Your task to perform on an android device: change keyboard looks Image 0: 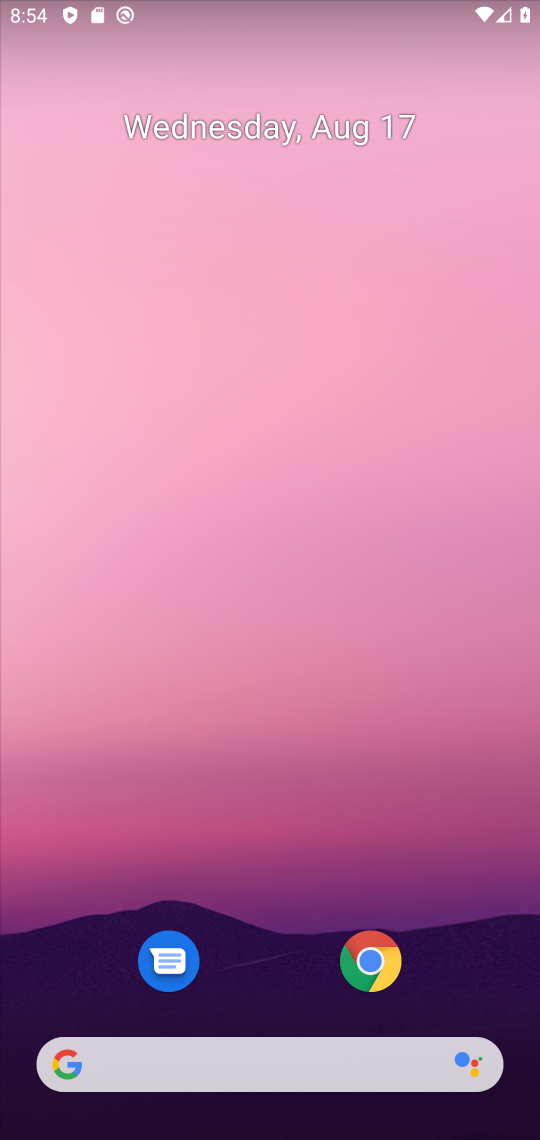
Step 0: drag from (245, 915) to (150, 7)
Your task to perform on an android device: change keyboard looks Image 1: 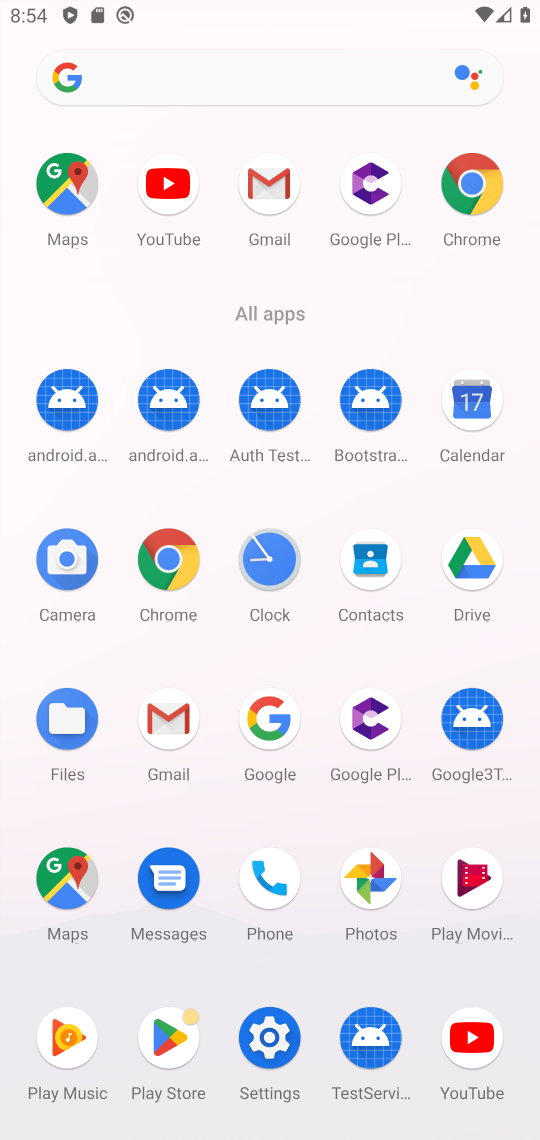
Step 1: click (262, 1043)
Your task to perform on an android device: change keyboard looks Image 2: 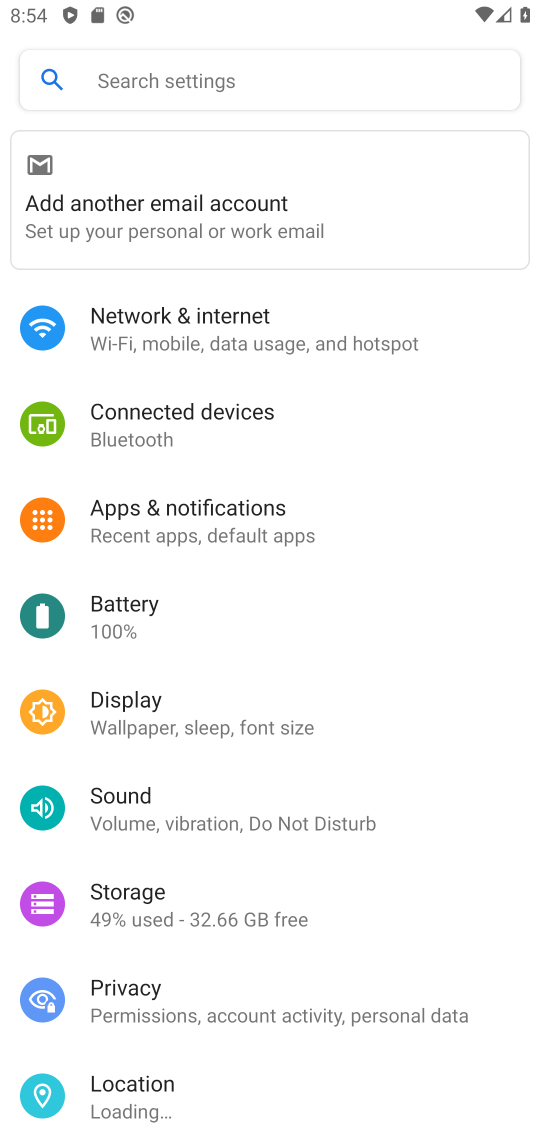
Step 2: drag from (367, 954) to (311, 51)
Your task to perform on an android device: change keyboard looks Image 3: 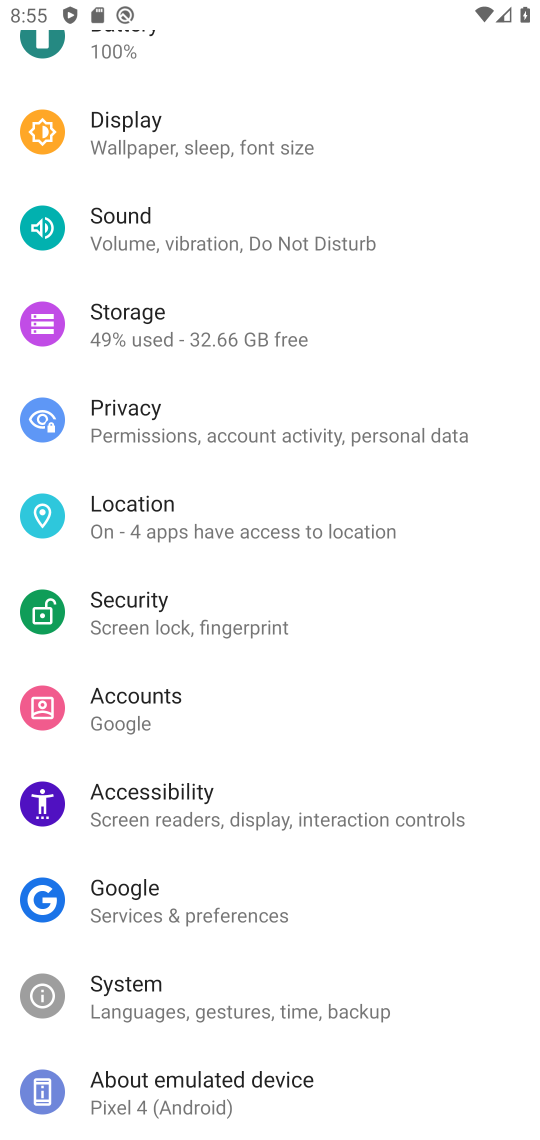
Step 3: click (201, 1011)
Your task to perform on an android device: change keyboard looks Image 4: 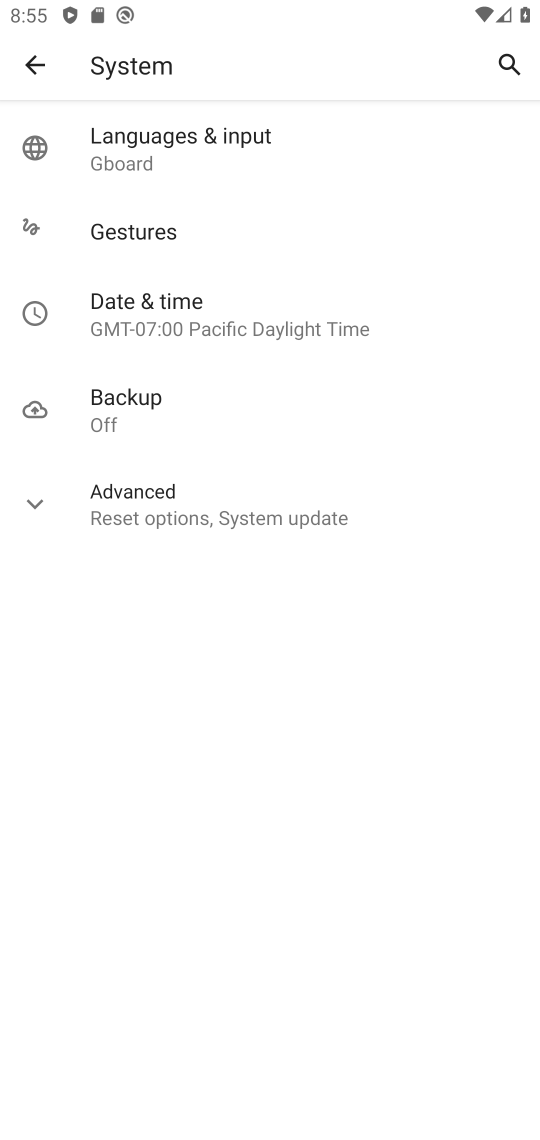
Step 4: click (139, 146)
Your task to perform on an android device: change keyboard looks Image 5: 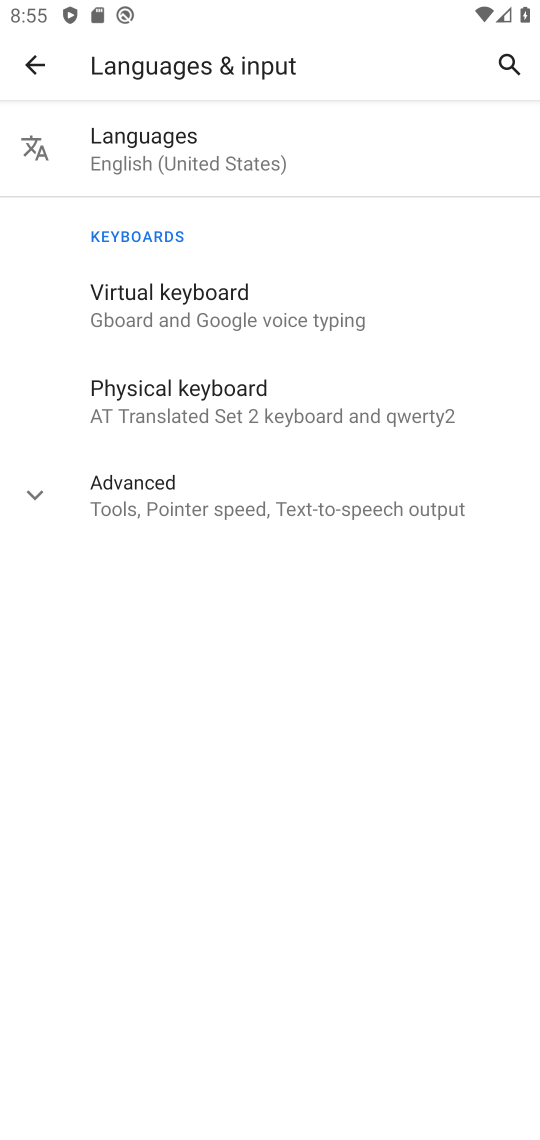
Step 5: click (136, 306)
Your task to perform on an android device: change keyboard looks Image 6: 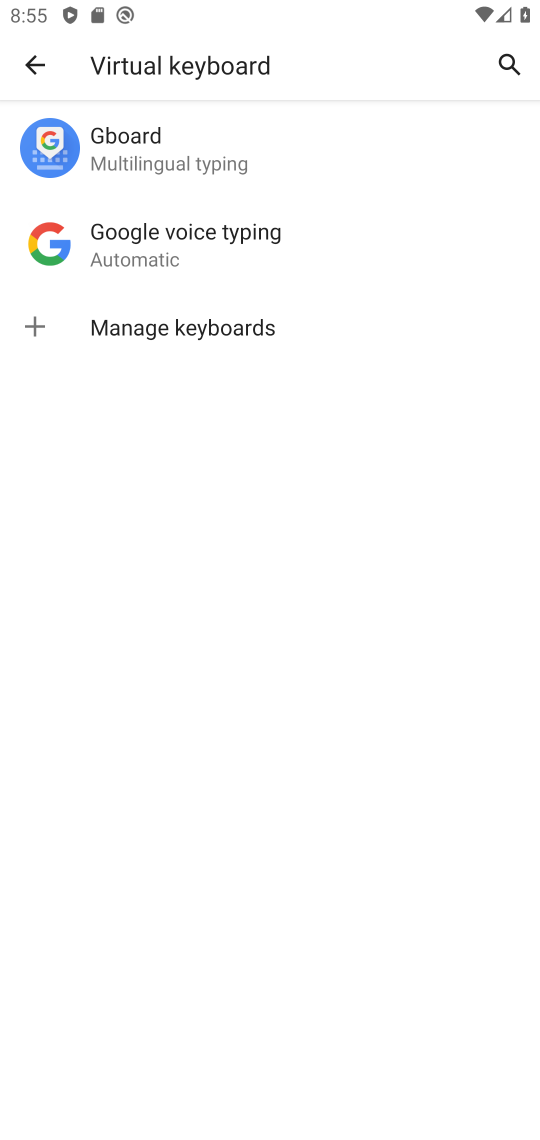
Step 6: click (134, 160)
Your task to perform on an android device: change keyboard looks Image 7: 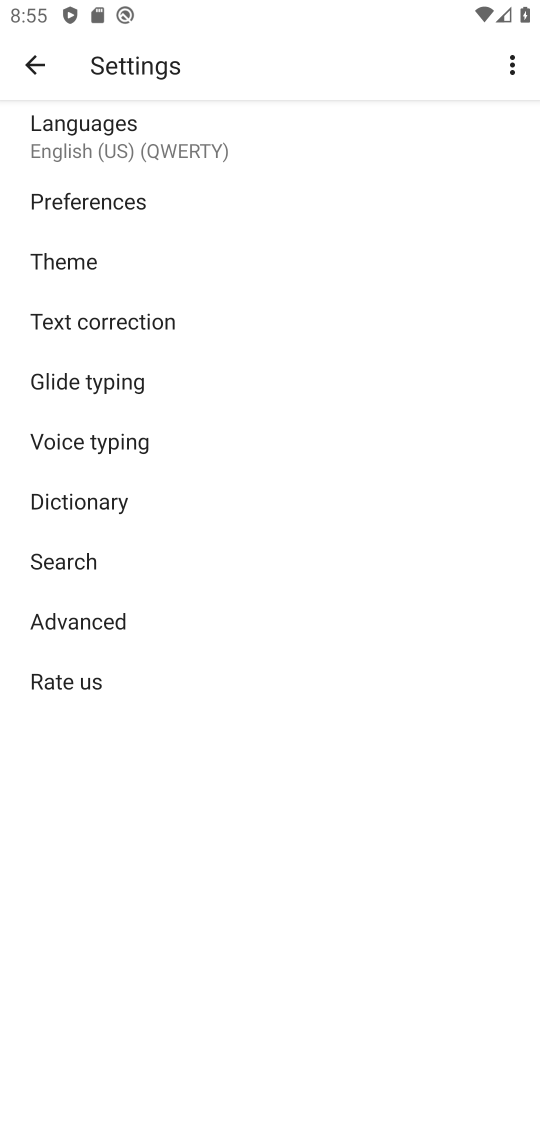
Step 7: click (82, 259)
Your task to perform on an android device: change keyboard looks Image 8: 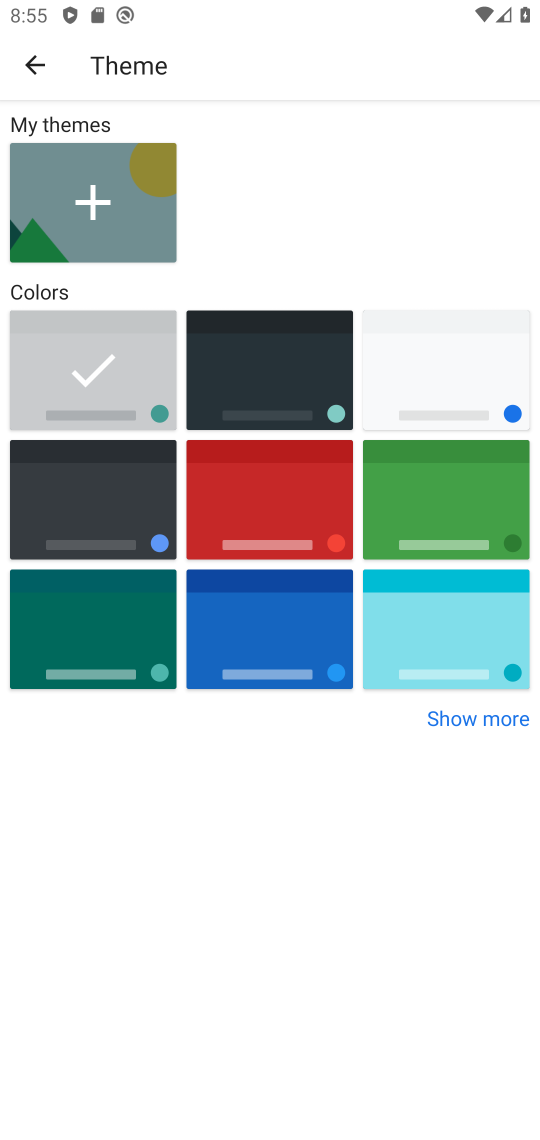
Step 8: click (423, 334)
Your task to perform on an android device: change keyboard looks Image 9: 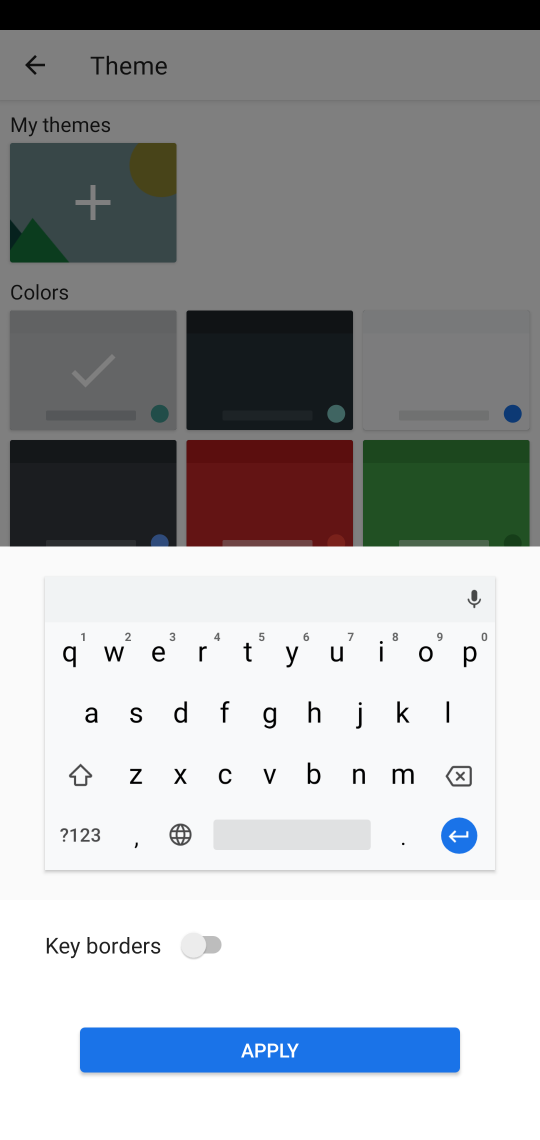
Step 9: click (401, 1054)
Your task to perform on an android device: change keyboard looks Image 10: 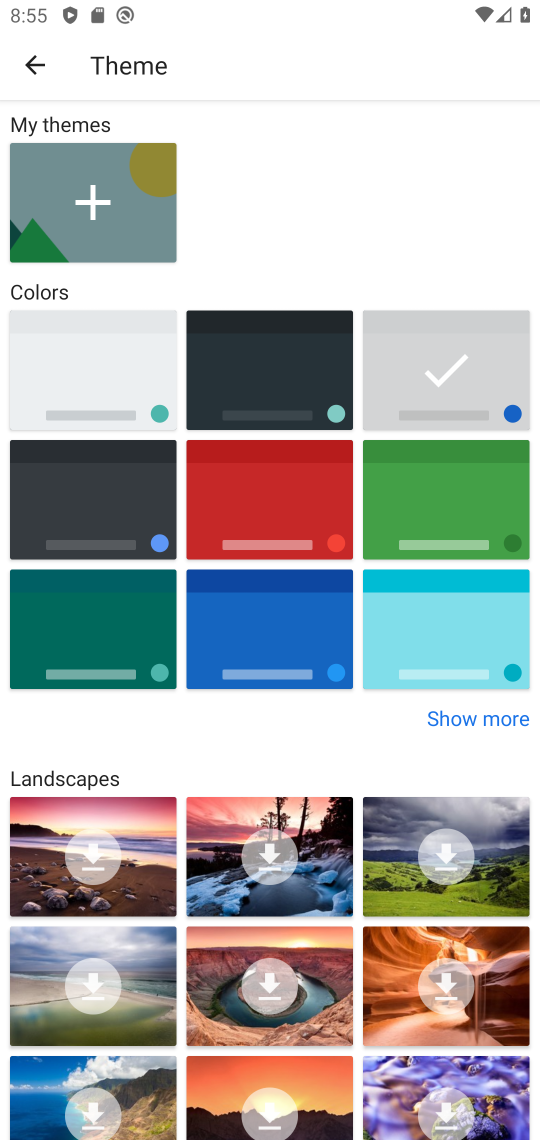
Step 10: task complete